Your task to perform on an android device: choose inbox layout in the gmail app Image 0: 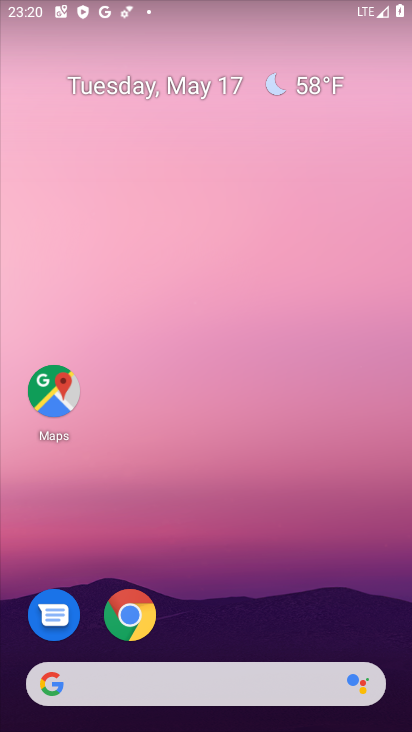
Step 0: drag from (209, 616) to (209, 256)
Your task to perform on an android device: choose inbox layout in the gmail app Image 1: 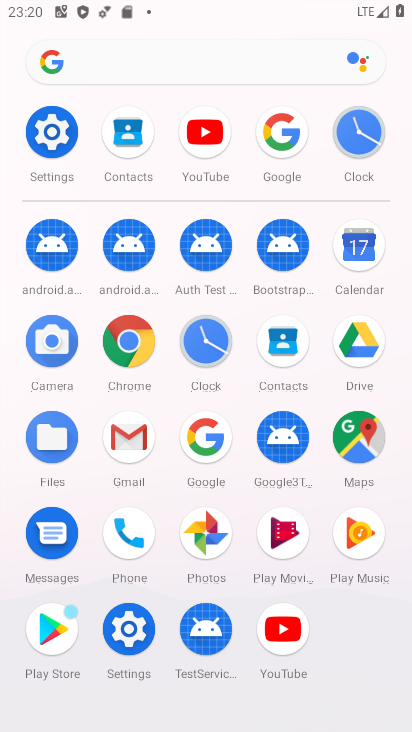
Step 1: click (136, 433)
Your task to perform on an android device: choose inbox layout in the gmail app Image 2: 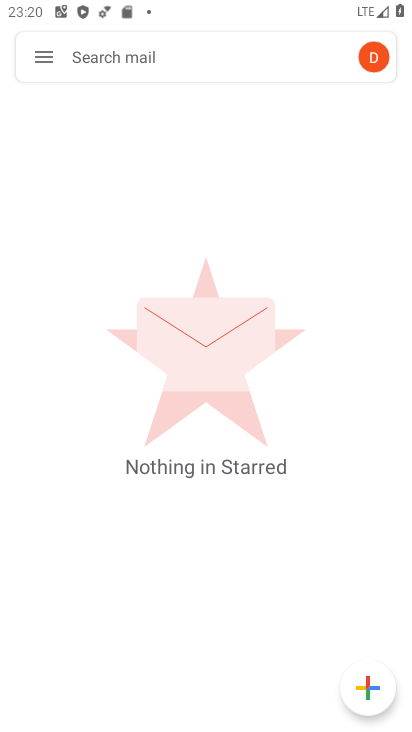
Step 2: click (55, 62)
Your task to perform on an android device: choose inbox layout in the gmail app Image 3: 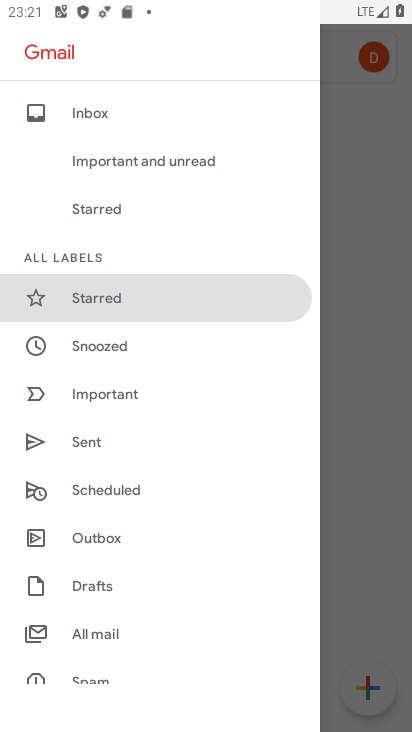
Step 3: drag from (126, 656) to (147, 419)
Your task to perform on an android device: choose inbox layout in the gmail app Image 4: 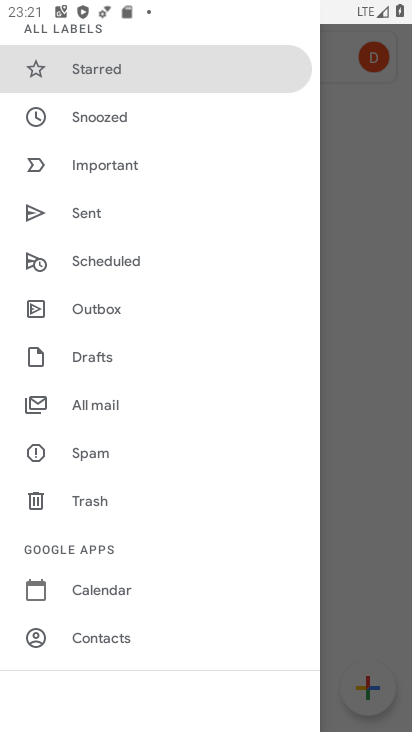
Step 4: drag from (100, 607) to (119, 395)
Your task to perform on an android device: choose inbox layout in the gmail app Image 5: 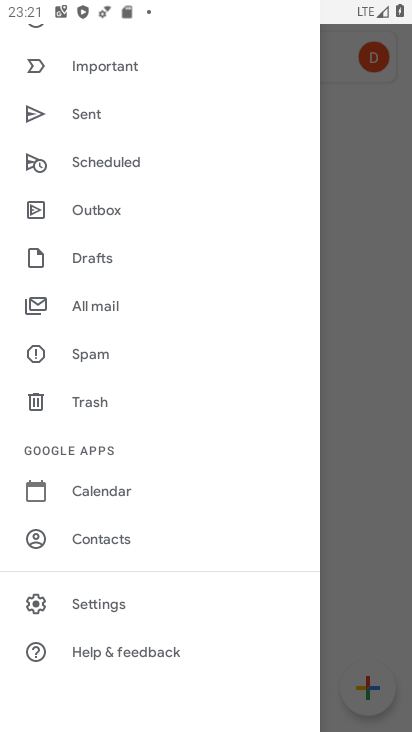
Step 5: click (97, 603)
Your task to perform on an android device: choose inbox layout in the gmail app Image 6: 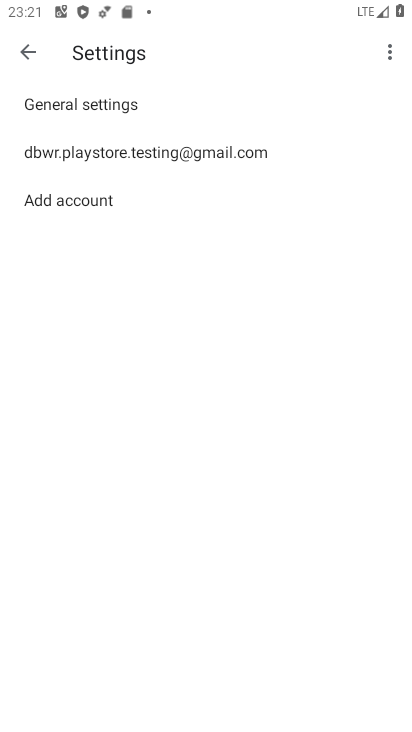
Step 6: click (116, 137)
Your task to perform on an android device: choose inbox layout in the gmail app Image 7: 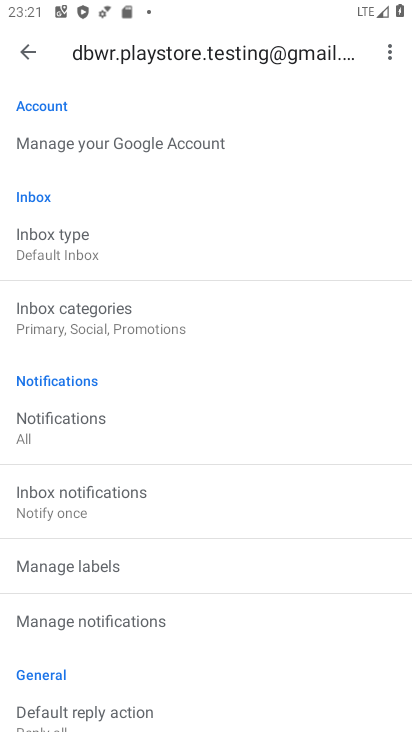
Step 7: click (113, 256)
Your task to perform on an android device: choose inbox layout in the gmail app Image 8: 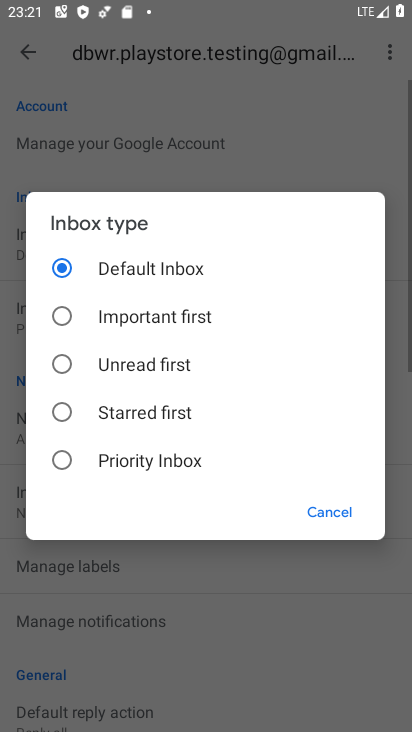
Step 8: click (90, 459)
Your task to perform on an android device: choose inbox layout in the gmail app Image 9: 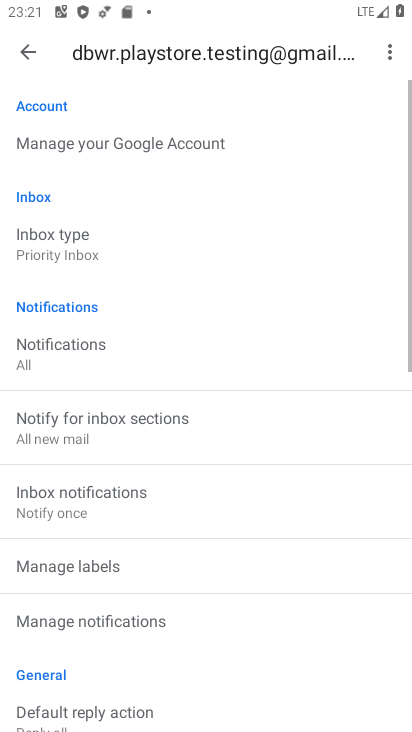
Step 9: task complete